Your task to perform on an android device: turn smart compose on in the gmail app Image 0: 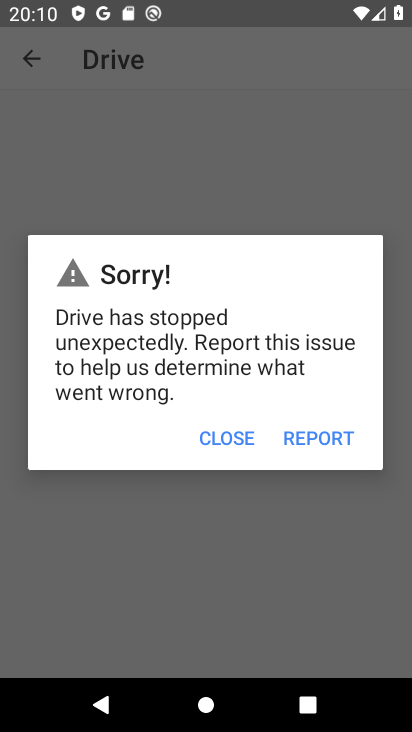
Step 0: press back button
Your task to perform on an android device: turn smart compose on in the gmail app Image 1: 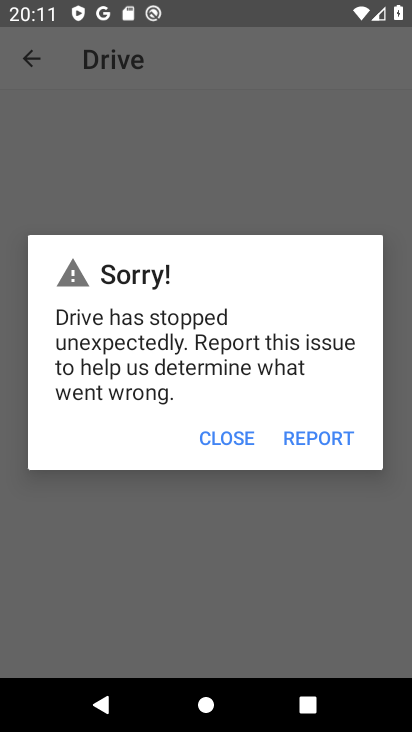
Step 1: press back button
Your task to perform on an android device: turn smart compose on in the gmail app Image 2: 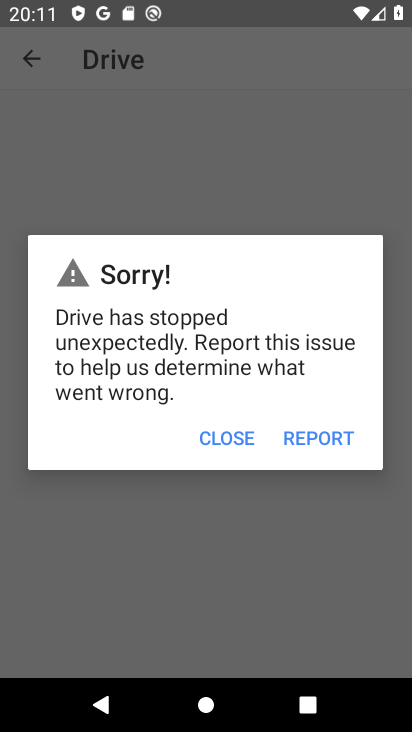
Step 2: press back button
Your task to perform on an android device: turn smart compose on in the gmail app Image 3: 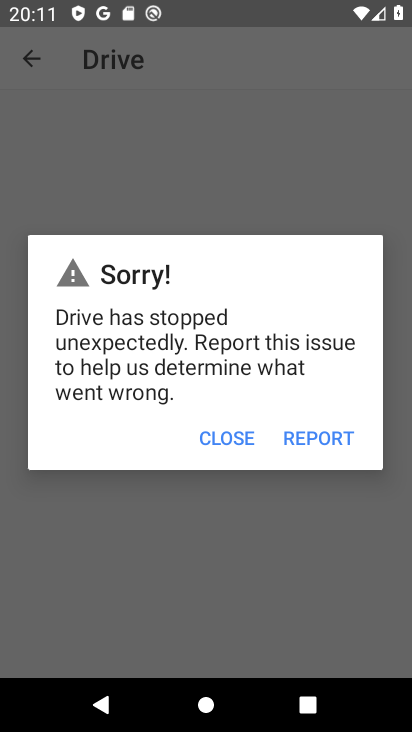
Step 3: press home button
Your task to perform on an android device: turn smart compose on in the gmail app Image 4: 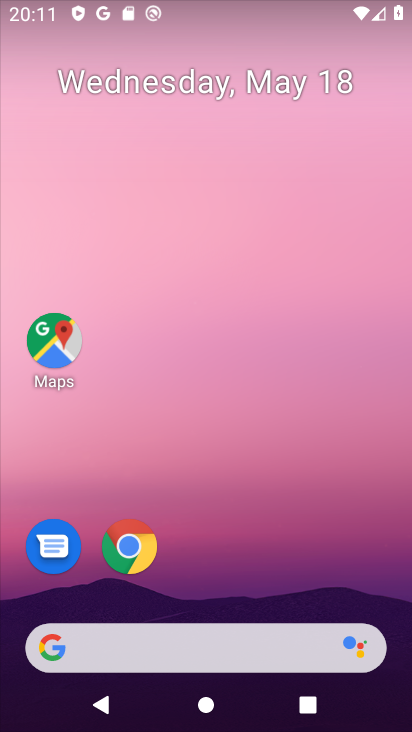
Step 4: drag from (237, 593) to (249, 92)
Your task to perform on an android device: turn smart compose on in the gmail app Image 5: 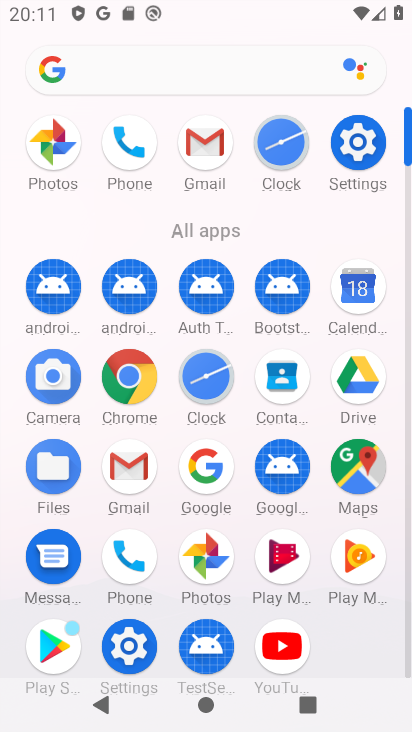
Step 5: click (200, 162)
Your task to perform on an android device: turn smart compose on in the gmail app Image 6: 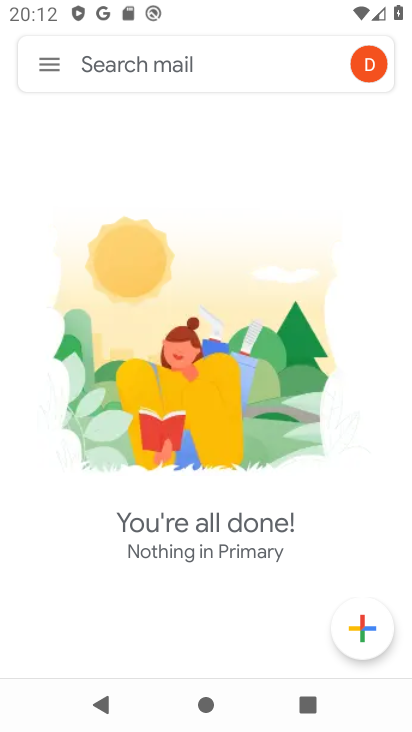
Step 6: click (40, 61)
Your task to perform on an android device: turn smart compose on in the gmail app Image 7: 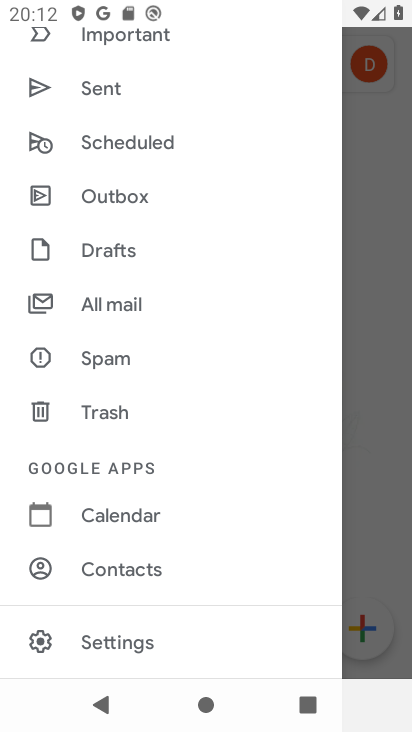
Step 7: click (160, 636)
Your task to perform on an android device: turn smart compose on in the gmail app Image 8: 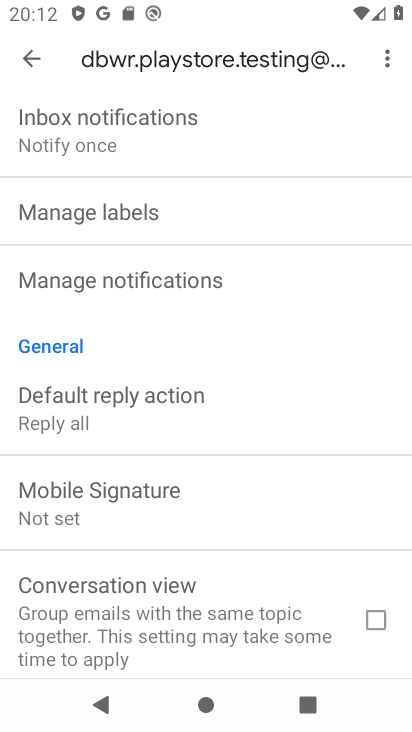
Step 8: task complete